Your task to perform on an android device: turn on priority inbox in the gmail app Image 0: 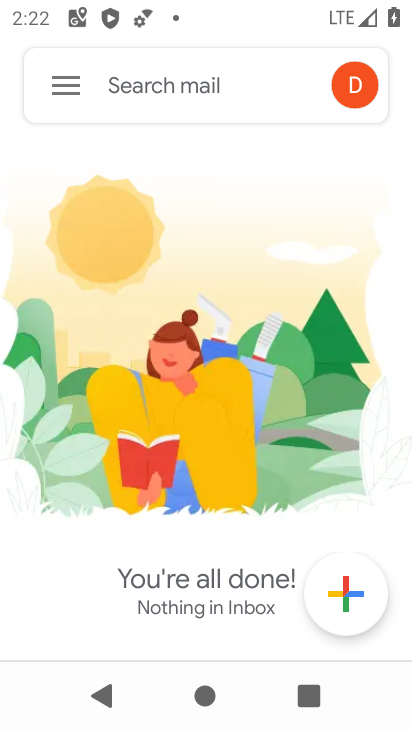
Step 0: click (55, 80)
Your task to perform on an android device: turn on priority inbox in the gmail app Image 1: 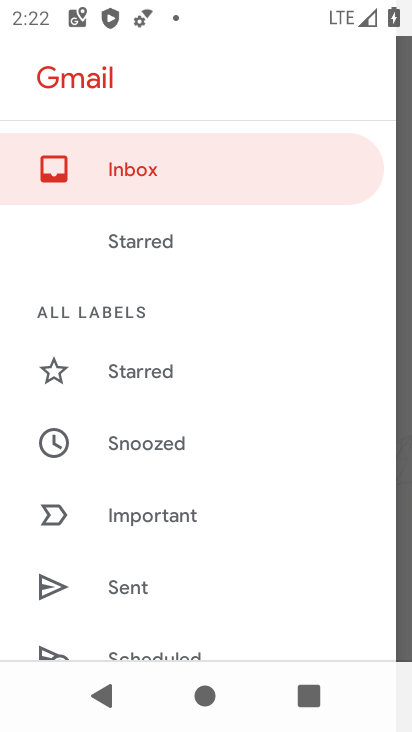
Step 1: drag from (119, 401) to (143, 317)
Your task to perform on an android device: turn on priority inbox in the gmail app Image 2: 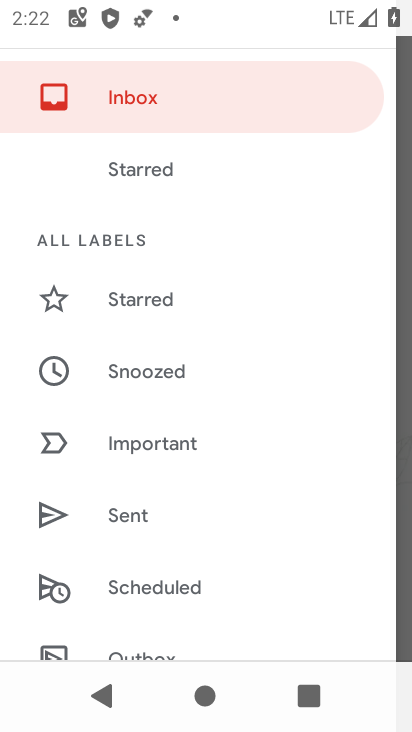
Step 2: drag from (138, 418) to (177, 347)
Your task to perform on an android device: turn on priority inbox in the gmail app Image 3: 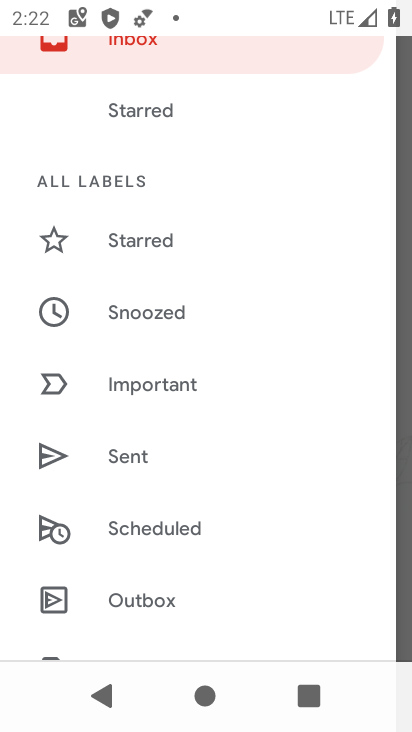
Step 3: drag from (138, 486) to (190, 387)
Your task to perform on an android device: turn on priority inbox in the gmail app Image 4: 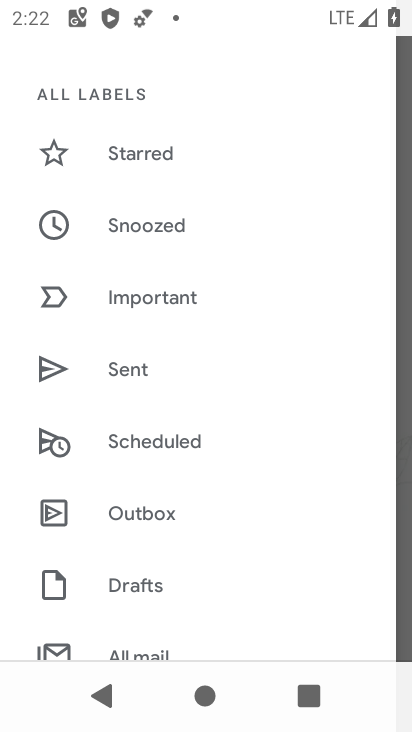
Step 4: drag from (131, 495) to (184, 399)
Your task to perform on an android device: turn on priority inbox in the gmail app Image 5: 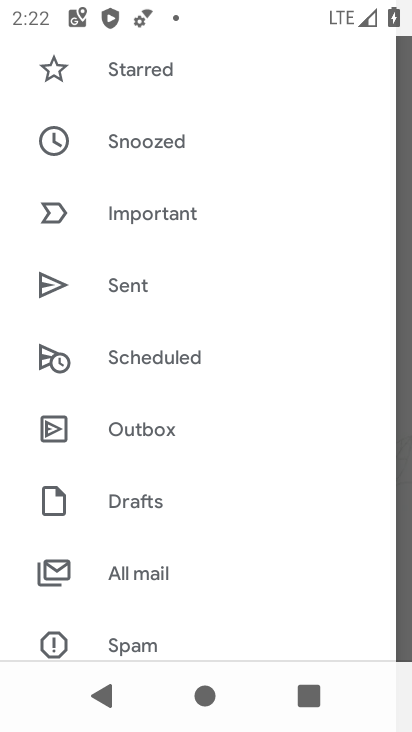
Step 5: drag from (136, 529) to (179, 459)
Your task to perform on an android device: turn on priority inbox in the gmail app Image 6: 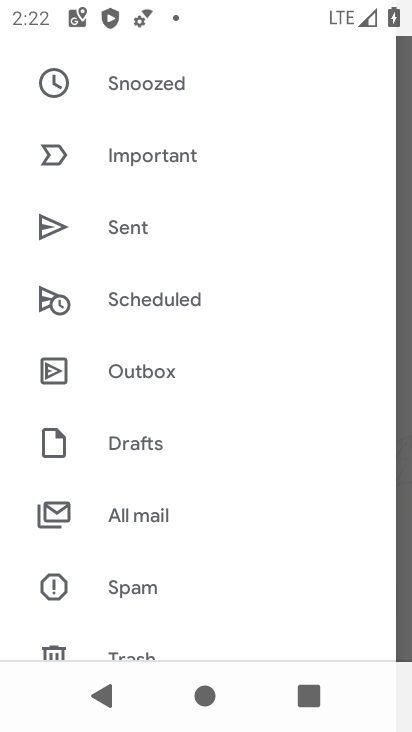
Step 6: drag from (109, 558) to (189, 441)
Your task to perform on an android device: turn on priority inbox in the gmail app Image 7: 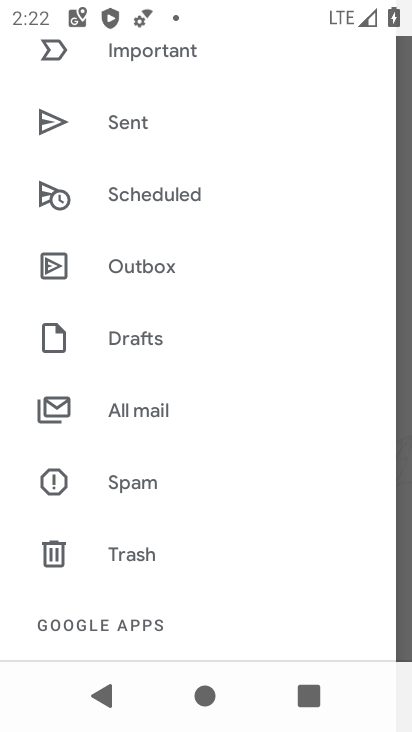
Step 7: drag from (134, 542) to (170, 407)
Your task to perform on an android device: turn on priority inbox in the gmail app Image 8: 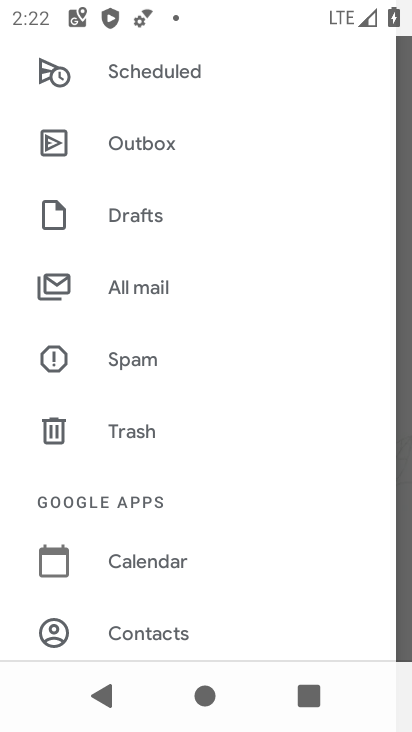
Step 8: drag from (138, 521) to (188, 423)
Your task to perform on an android device: turn on priority inbox in the gmail app Image 9: 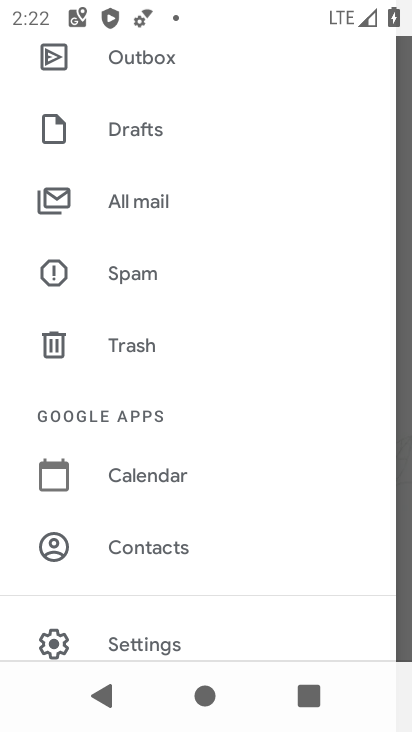
Step 9: drag from (140, 592) to (216, 450)
Your task to perform on an android device: turn on priority inbox in the gmail app Image 10: 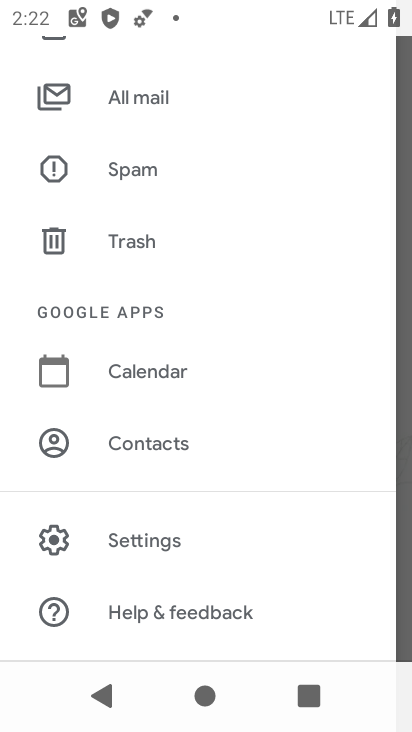
Step 10: click (155, 544)
Your task to perform on an android device: turn on priority inbox in the gmail app Image 11: 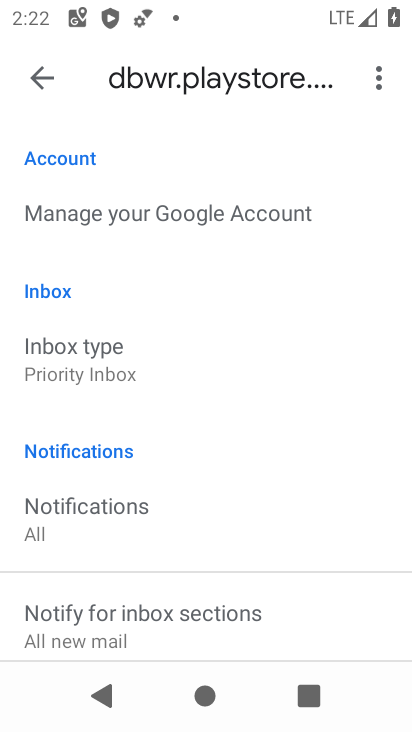
Step 11: click (110, 363)
Your task to perform on an android device: turn on priority inbox in the gmail app Image 12: 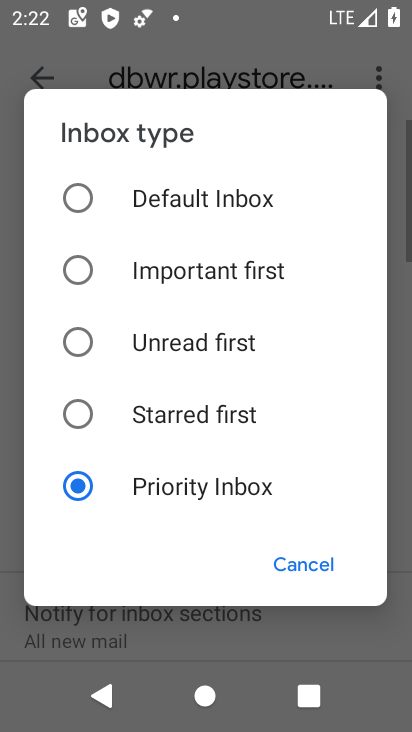
Step 12: click (85, 489)
Your task to perform on an android device: turn on priority inbox in the gmail app Image 13: 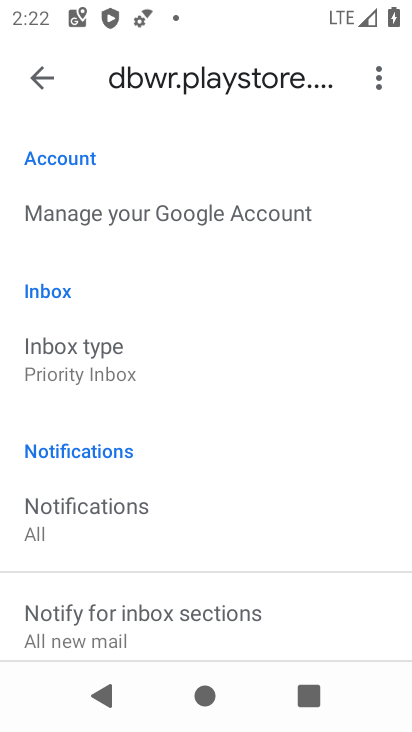
Step 13: task complete